Your task to perform on an android device: change the clock display to analog Image 0: 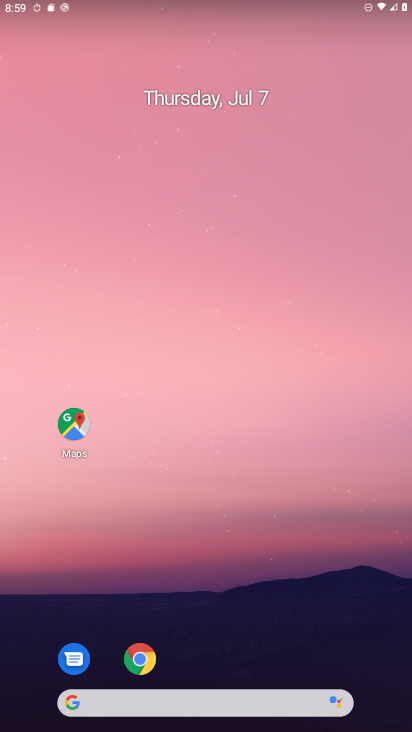
Step 0: drag from (375, 692) to (213, 55)
Your task to perform on an android device: change the clock display to analog Image 1: 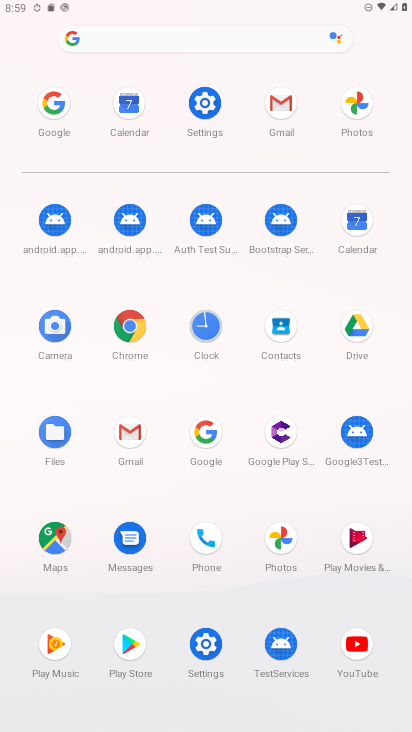
Step 1: click (210, 330)
Your task to perform on an android device: change the clock display to analog Image 2: 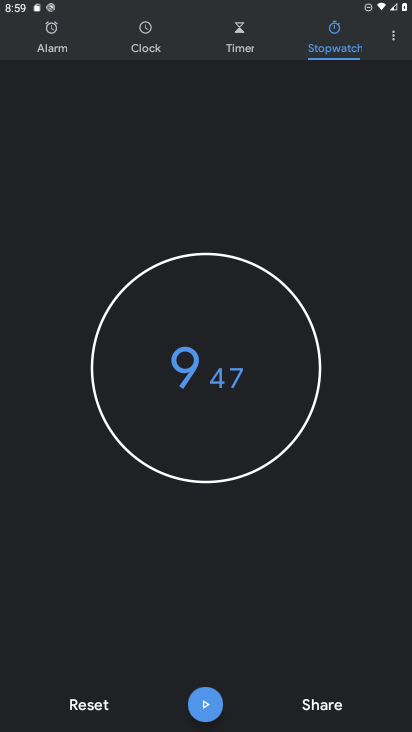
Step 2: click (389, 33)
Your task to perform on an android device: change the clock display to analog Image 3: 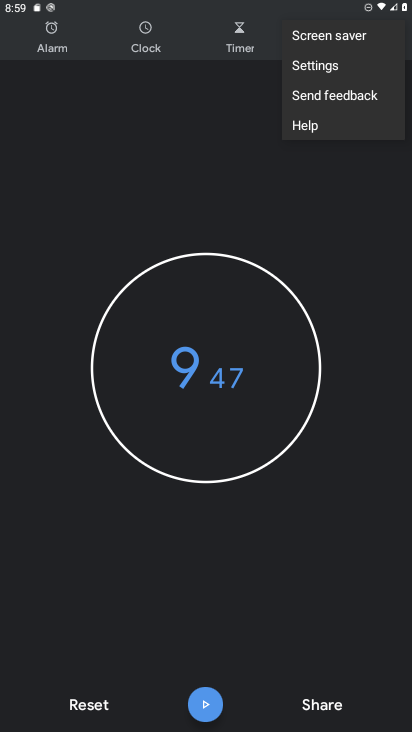
Step 3: click (328, 65)
Your task to perform on an android device: change the clock display to analog Image 4: 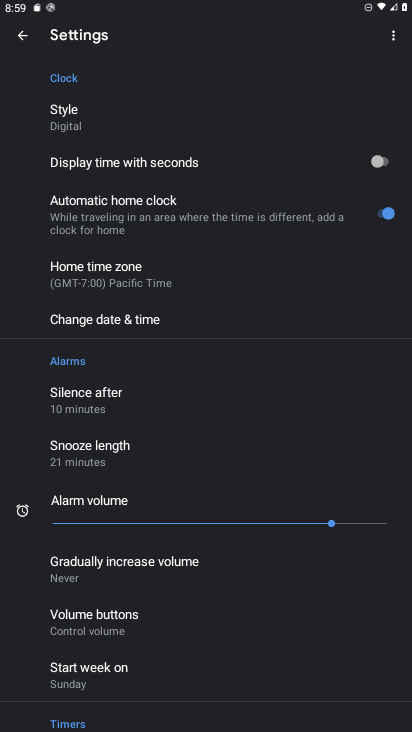
Step 4: click (71, 112)
Your task to perform on an android device: change the clock display to analog Image 5: 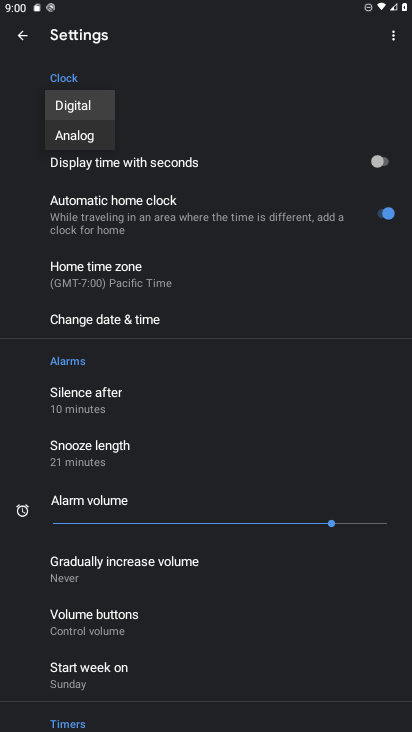
Step 5: click (83, 134)
Your task to perform on an android device: change the clock display to analog Image 6: 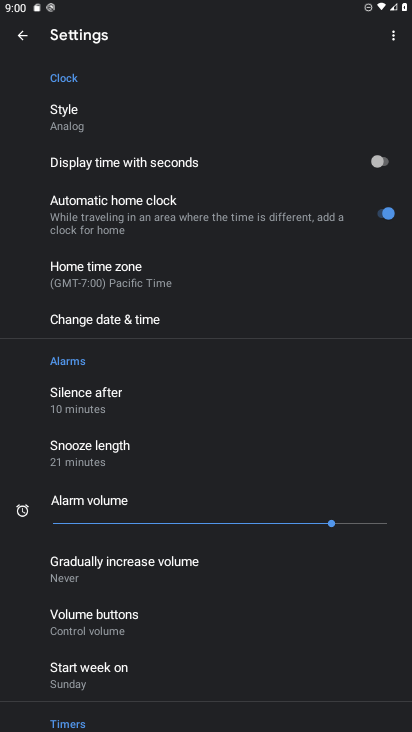
Step 6: task complete